Your task to perform on an android device: Go to sound settings Image 0: 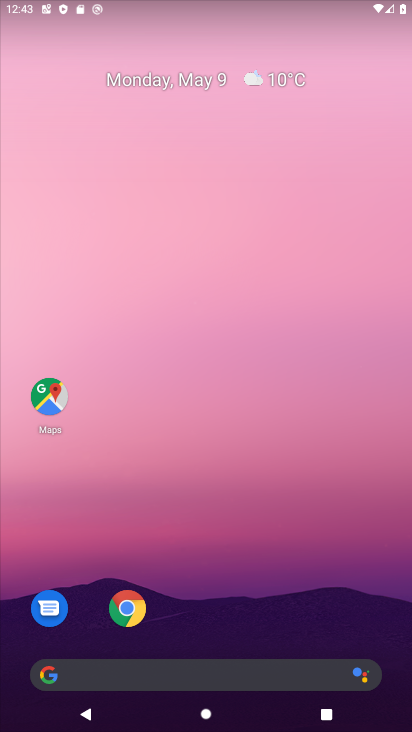
Step 0: drag from (235, 639) to (205, 141)
Your task to perform on an android device: Go to sound settings Image 1: 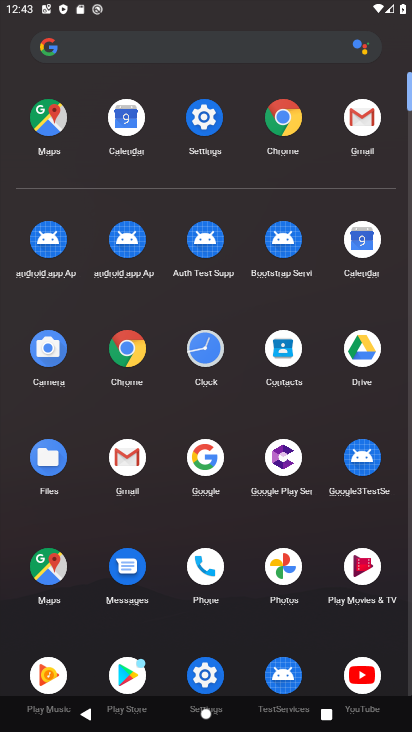
Step 1: click (202, 111)
Your task to perform on an android device: Go to sound settings Image 2: 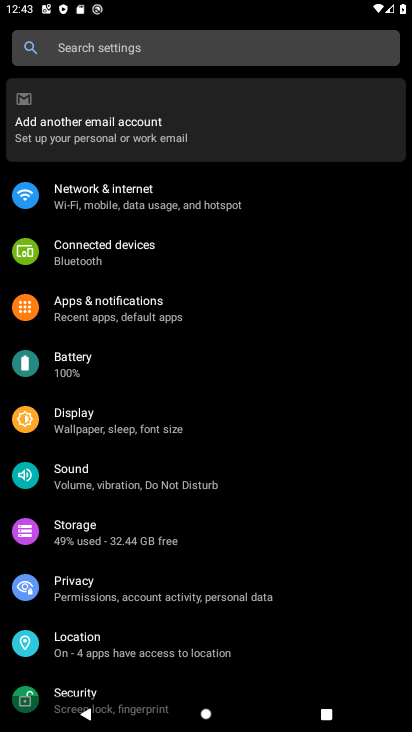
Step 2: click (256, 46)
Your task to perform on an android device: Go to sound settings Image 3: 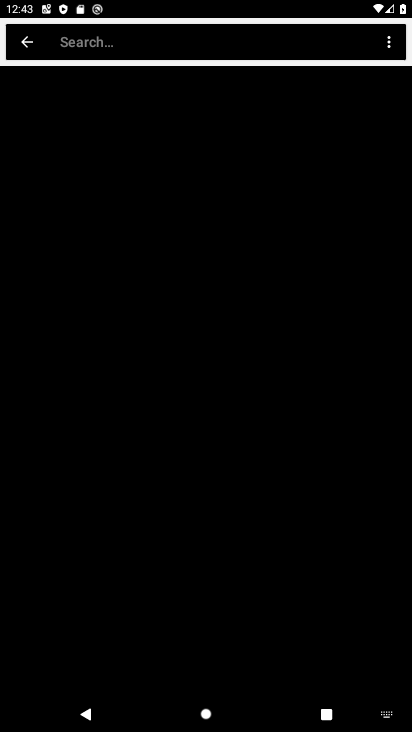
Step 3: task complete